Your task to perform on an android device: Open the map Image 0: 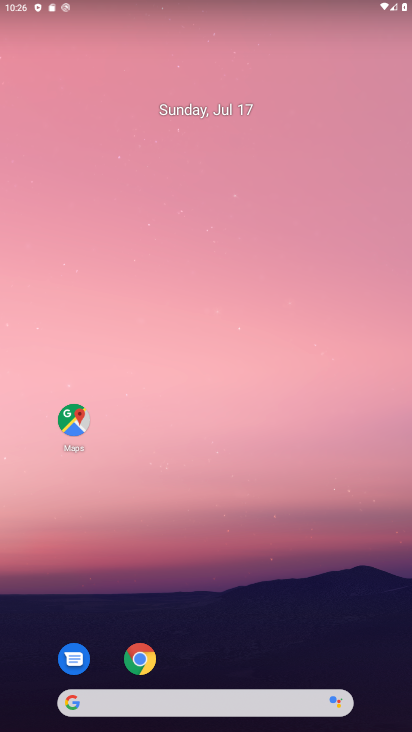
Step 0: click (63, 422)
Your task to perform on an android device: Open the map Image 1: 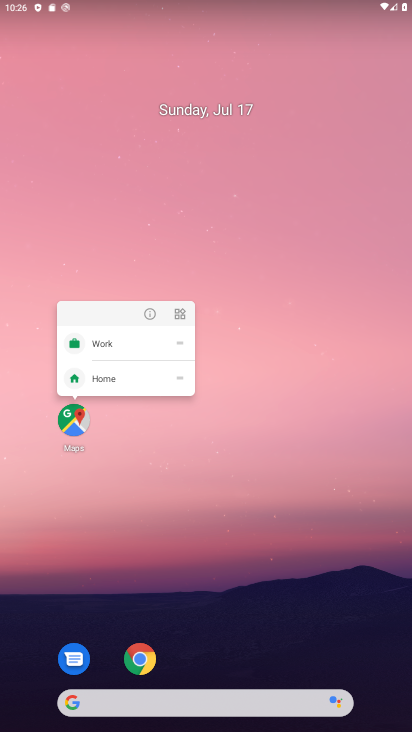
Step 1: click (66, 424)
Your task to perform on an android device: Open the map Image 2: 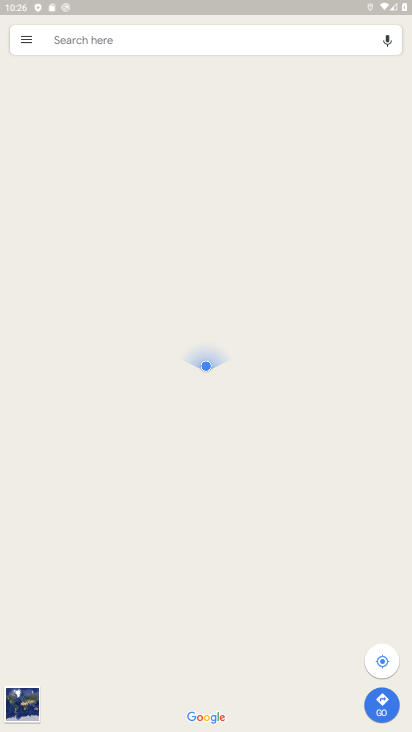
Step 2: task complete